Your task to perform on an android device: Turn off the flashlight Image 0: 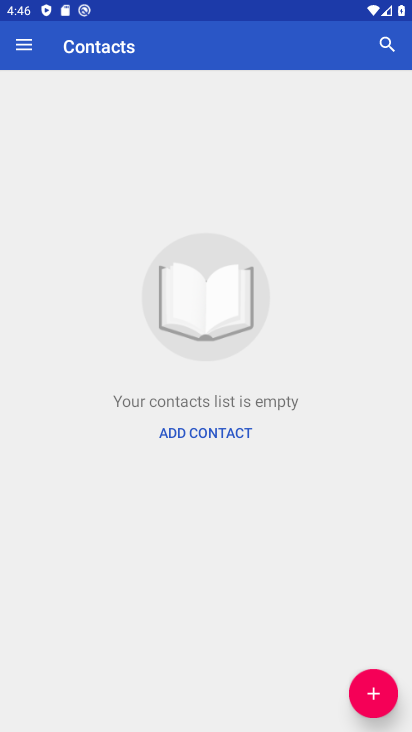
Step 0: press back button
Your task to perform on an android device: Turn off the flashlight Image 1: 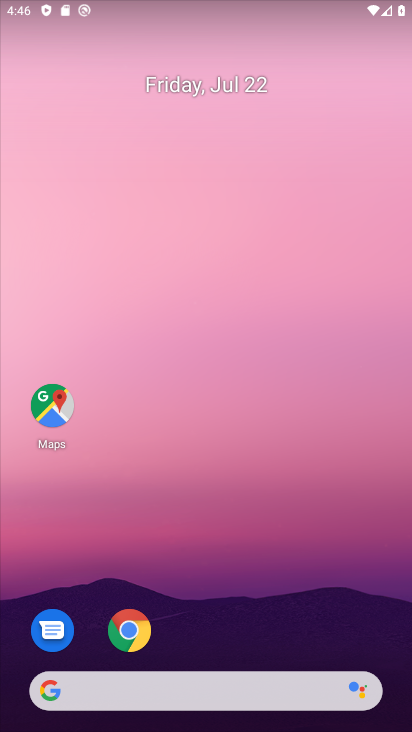
Step 1: drag from (152, 52) to (98, 19)
Your task to perform on an android device: Turn off the flashlight Image 2: 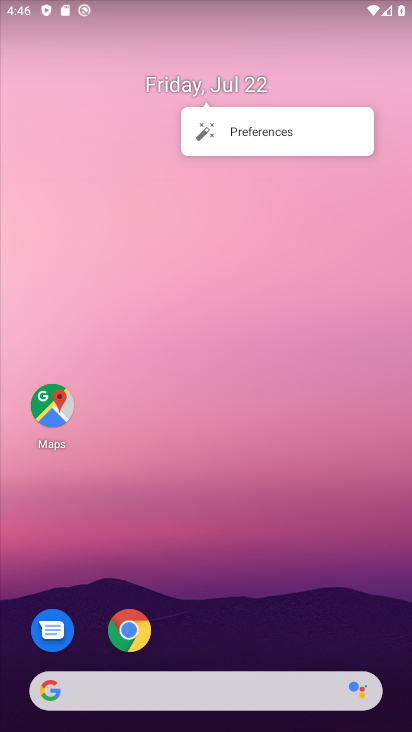
Step 2: drag from (186, 561) to (173, 6)
Your task to perform on an android device: Turn off the flashlight Image 3: 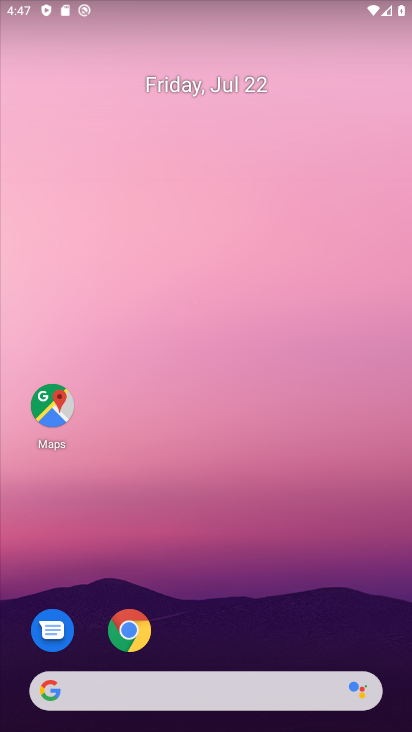
Step 3: drag from (206, 556) to (196, 154)
Your task to perform on an android device: Turn off the flashlight Image 4: 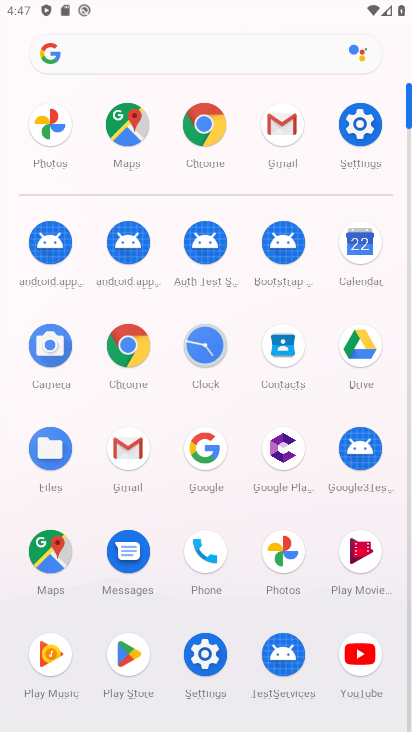
Step 4: click (376, 115)
Your task to perform on an android device: Turn off the flashlight Image 5: 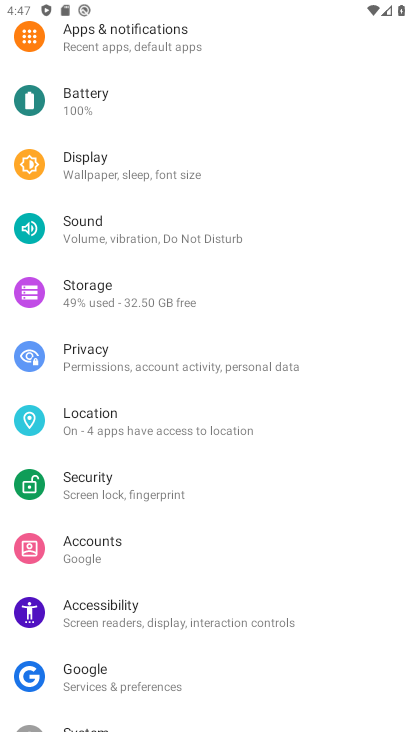
Step 5: task complete